Your task to perform on an android device: delete browsing data in the chrome app Image 0: 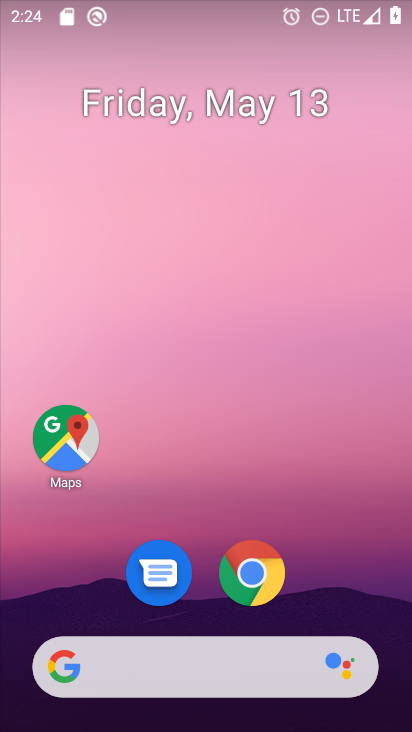
Step 0: click (267, 567)
Your task to perform on an android device: delete browsing data in the chrome app Image 1: 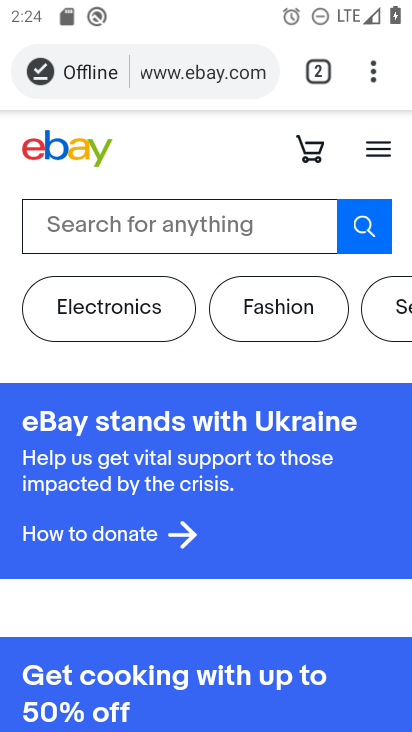
Step 1: click (372, 75)
Your task to perform on an android device: delete browsing data in the chrome app Image 2: 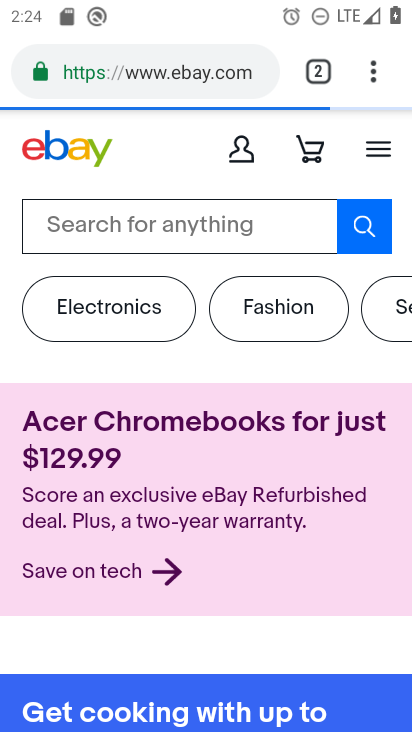
Step 2: click (372, 75)
Your task to perform on an android device: delete browsing data in the chrome app Image 3: 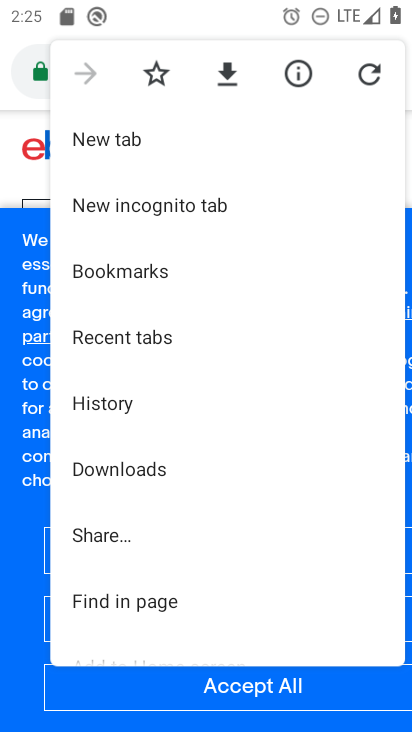
Step 3: click (102, 407)
Your task to perform on an android device: delete browsing data in the chrome app Image 4: 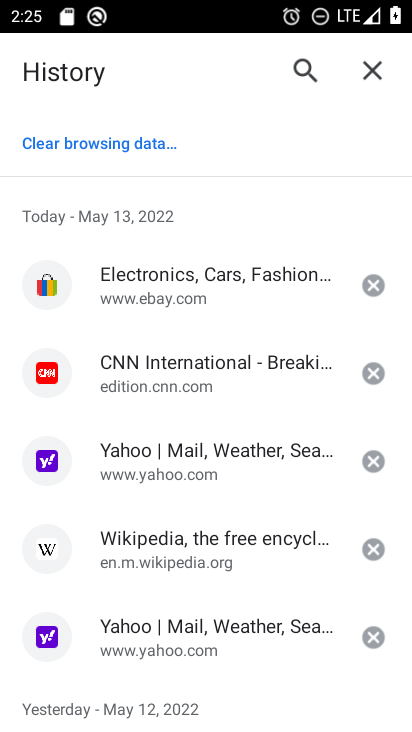
Step 4: click (125, 137)
Your task to perform on an android device: delete browsing data in the chrome app Image 5: 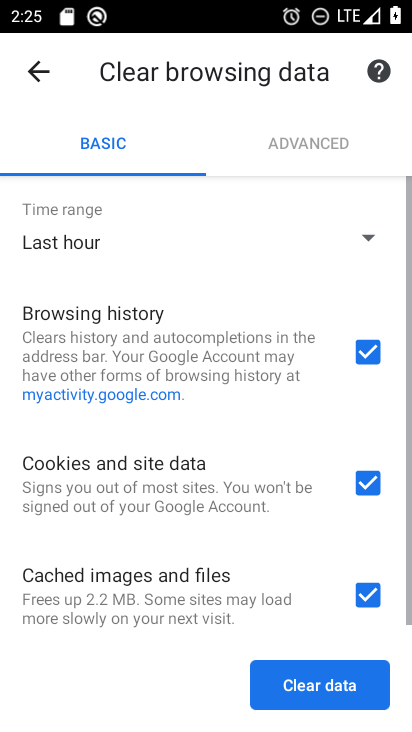
Step 5: click (322, 675)
Your task to perform on an android device: delete browsing data in the chrome app Image 6: 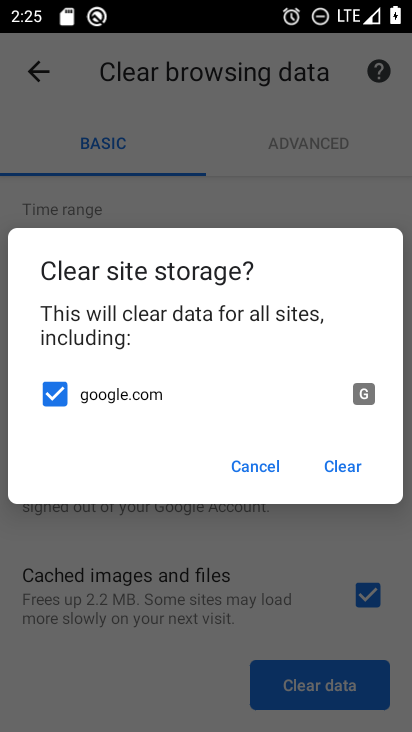
Step 6: click (341, 464)
Your task to perform on an android device: delete browsing data in the chrome app Image 7: 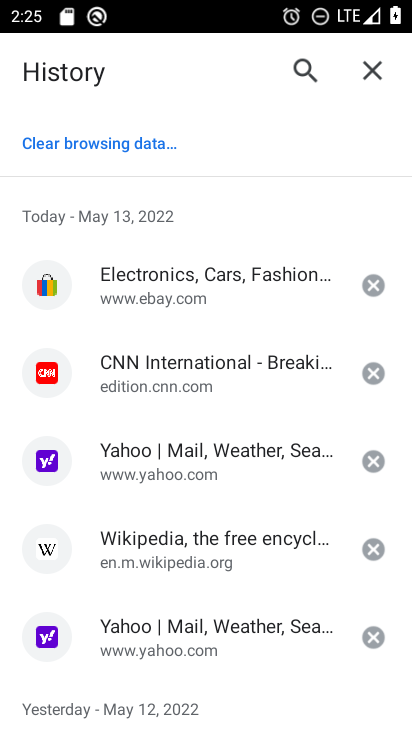
Step 7: task complete